Your task to perform on an android device: turn on translation in the chrome app Image 0: 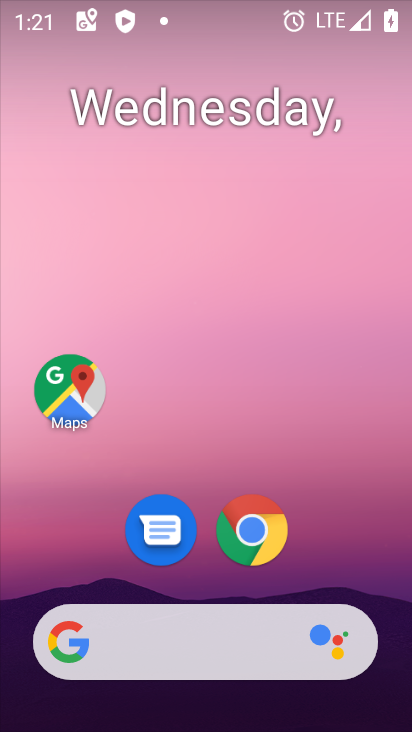
Step 0: drag from (335, 584) to (361, 129)
Your task to perform on an android device: turn on translation in the chrome app Image 1: 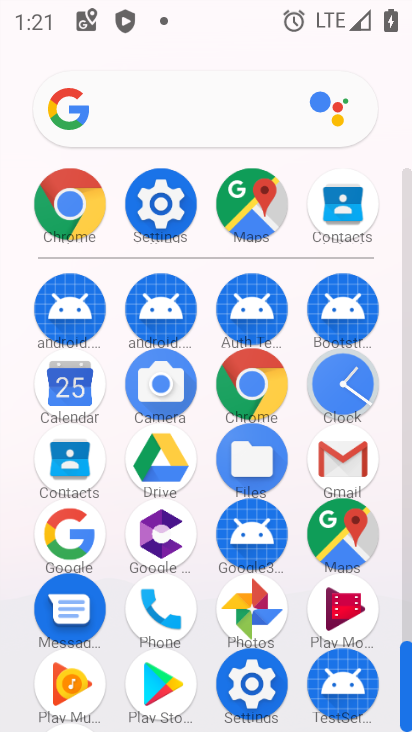
Step 1: click (61, 190)
Your task to perform on an android device: turn on translation in the chrome app Image 2: 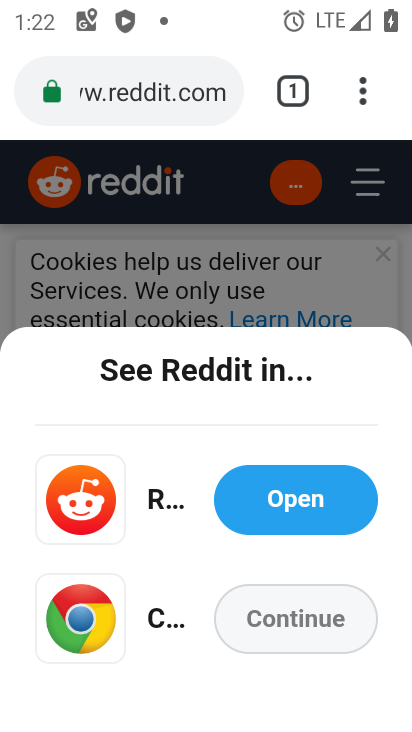
Step 2: drag from (373, 112) to (159, 563)
Your task to perform on an android device: turn on translation in the chrome app Image 3: 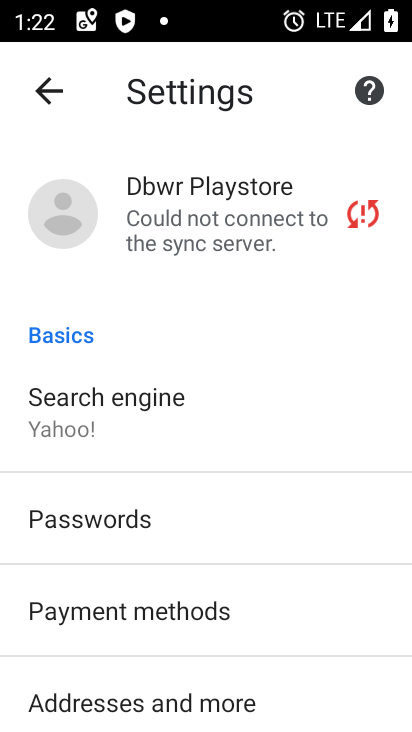
Step 3: drag from (251, 668) to (285, 269)
Your task to perform on an android device: turn on translation in the chrome app Image 4: 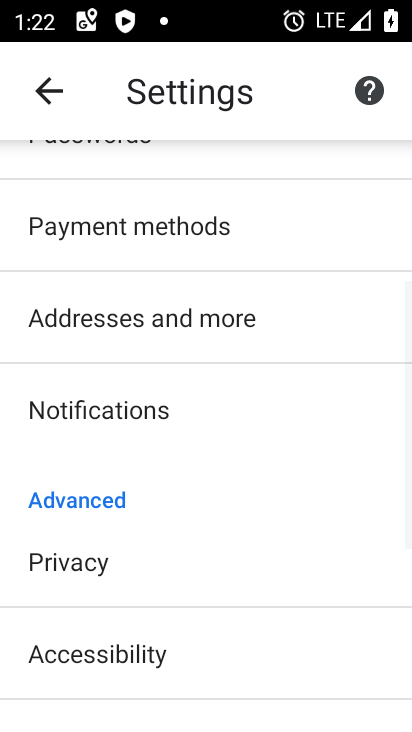
Step 4: drag from (295, 604) to (287, 220)
Your task to perform on an android device: turn on translation in the chrome app Image 5: 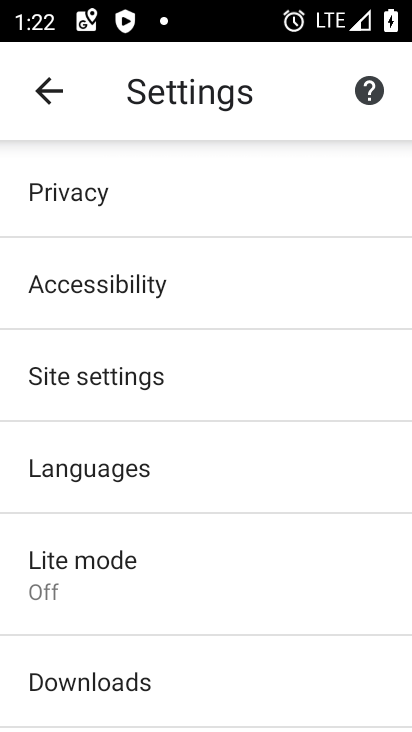
Step 5: drag from (294, 685) to (291, 405)
Your task to perform on an android device: turn on translation in the chrome app Image 6: 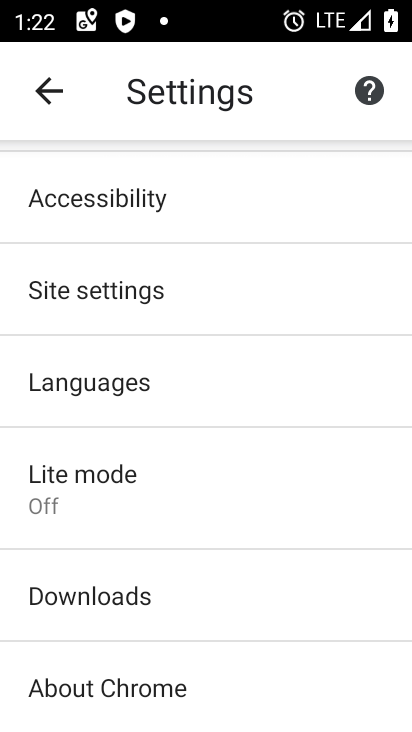
Step 6: click (207, 391)
Your task to perform on an android device: turn on translation in the chrome app Image 7: 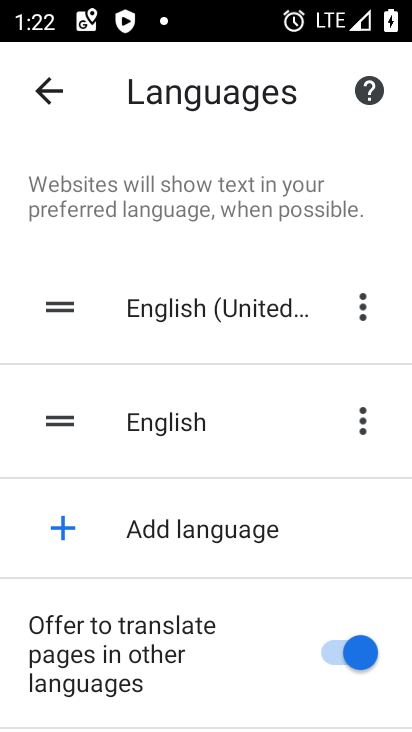
Step 7: task complete